Your task to perform on an android device: Show me popular games on the Play Store Image 0: 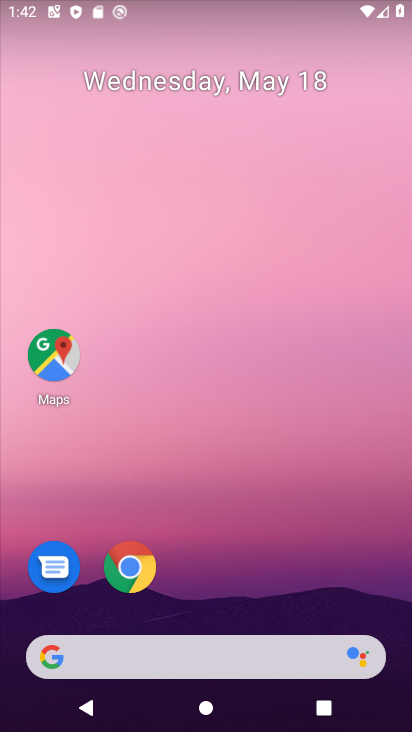
Step 0: drag from (254, 556) to (290, 35)
Your task to perform on an android device: Show me popular games on the Play Store Image 1: 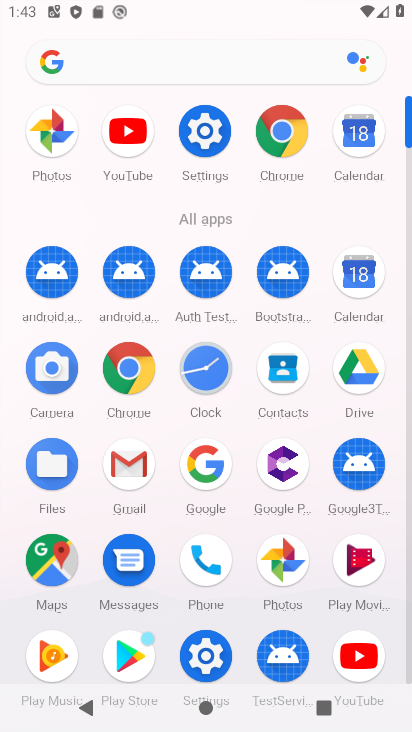
Step 1: drag from (264, 559) to (296, 225)
Your task to perform on an android device: Show me popular games on the Play Store Image 2: 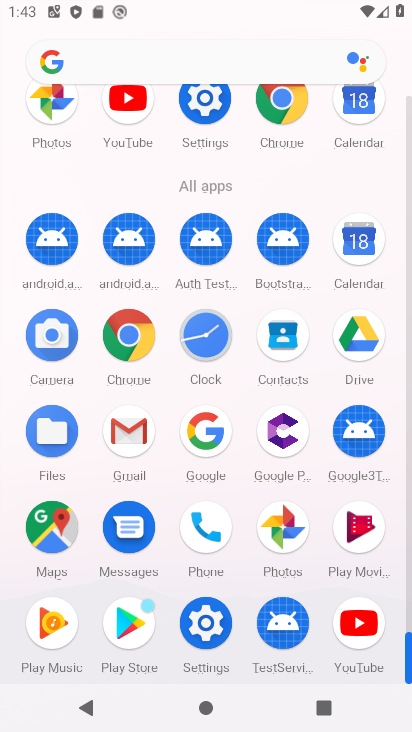
Step 2: click (128, 621)
Your task to perform on an android device: Show me popular games on the Play Store Image 3: 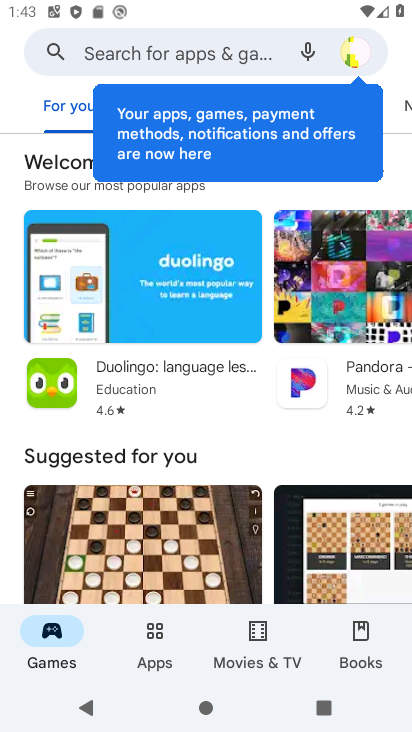
Step 3: task complete